Your task to perform on an android device: Open calendar and show me the third week of next month Image 0: 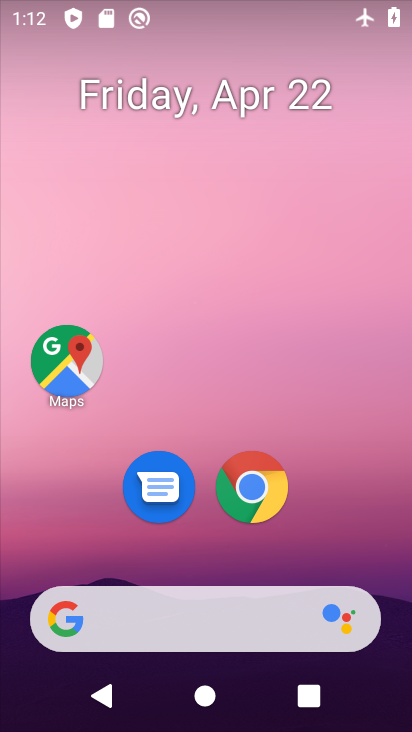
Step 0: drag from (199, 563) to (212, 173)
Your task to perform on an android device: Open calendar and show me the third week of next month Image 1: 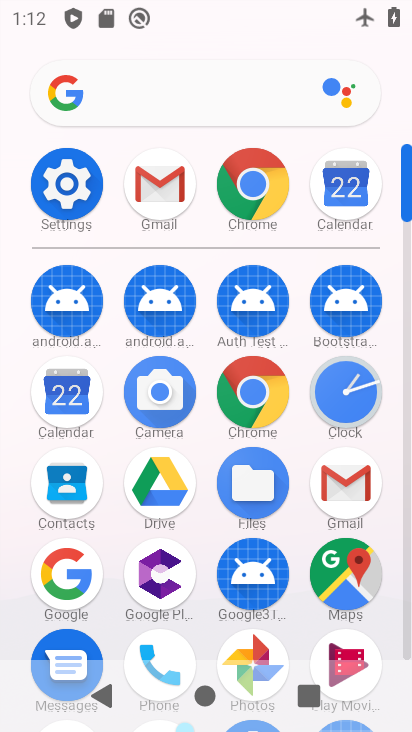
Step 1: click (353, 207)
Your task to perform on an android device: Open calendar and show me the third week of next month Image 2: 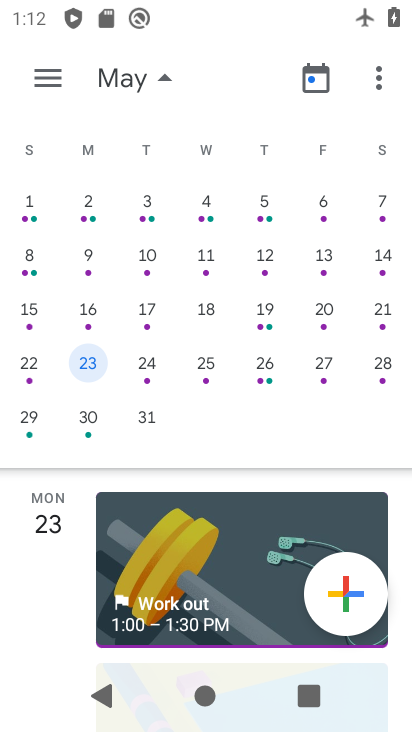
Step 2: click (92, 303)
Your task to perform on an android device: Open calendar and show me the third week of next month Image 3: 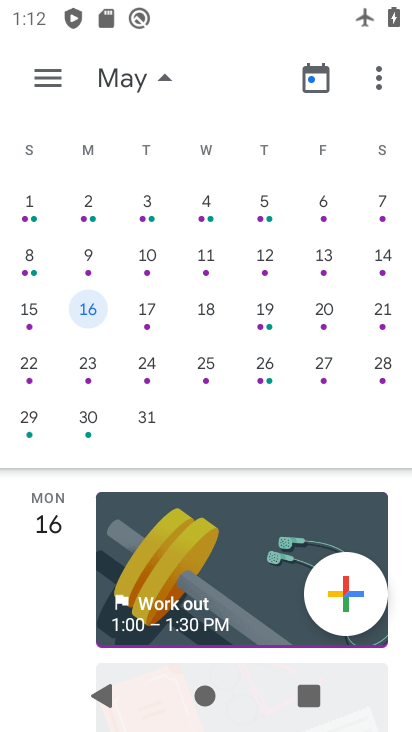
Step 3: click (18, 303)
Your task to perform on an android device: Open calendar and show me the third week of next month Image 4: 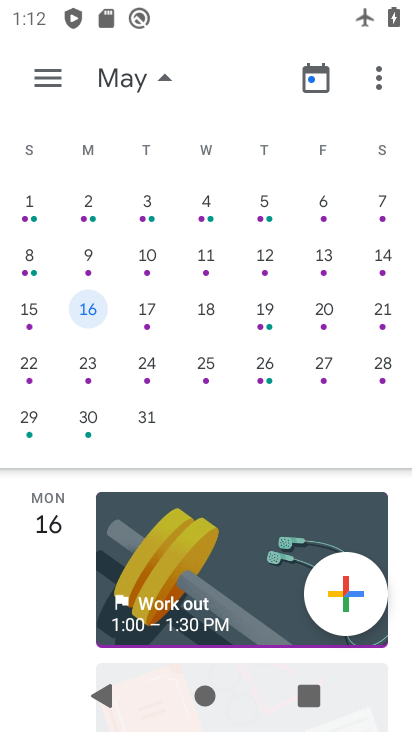
Step 4: click (41, 308)
Your task to perform on an android device: Open calendar and show me the third week of next month Image 5: 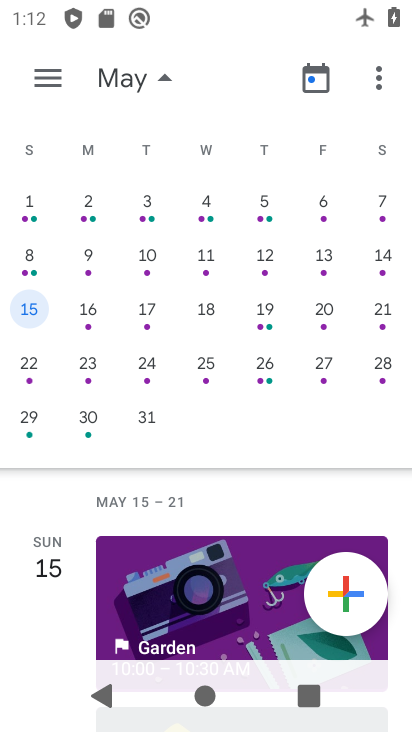
Step 5: task complete